Your task to perform on an android device: Show me recent news Image 0: 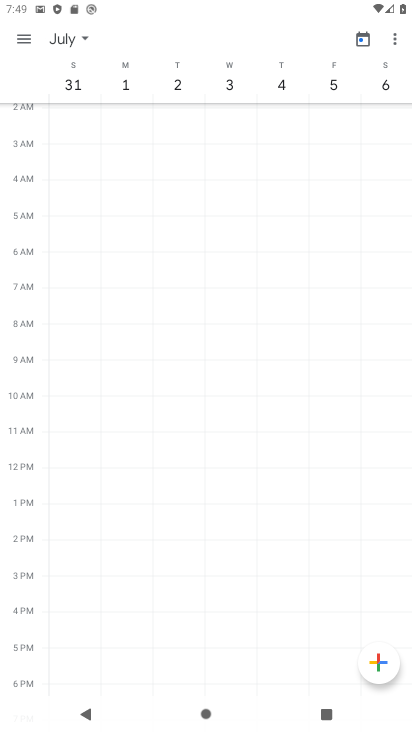
Step 0: press home button
Your task to perform on an android device: Show me recent news Image 1: 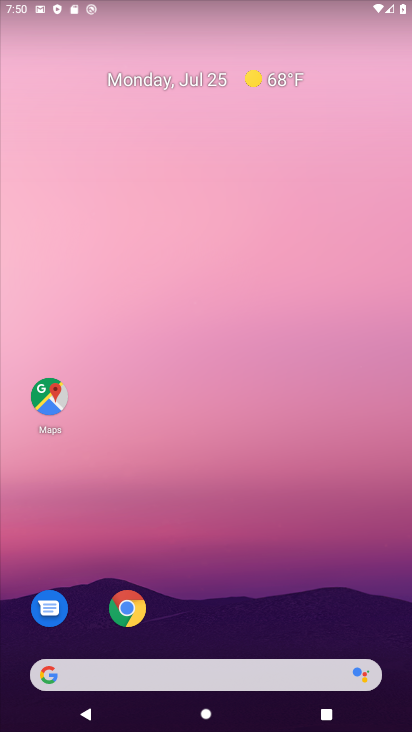
Step 1: click (148, 676)
Your task to perform on an android device: Show me recent news Image 2: 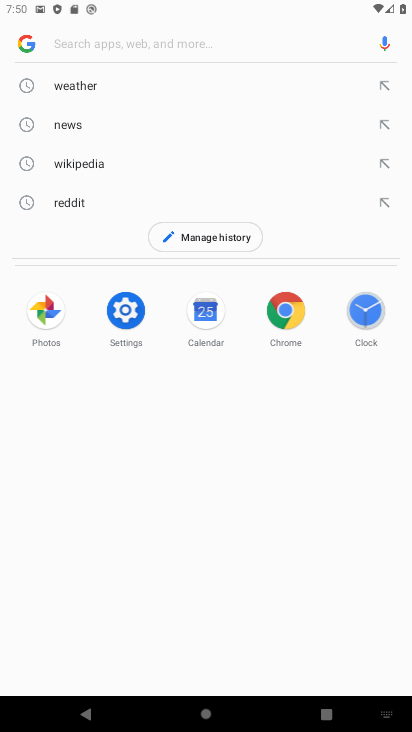
Step 2: type "recent news"
Your task to perform on an android device: Show me recent news Image 3: 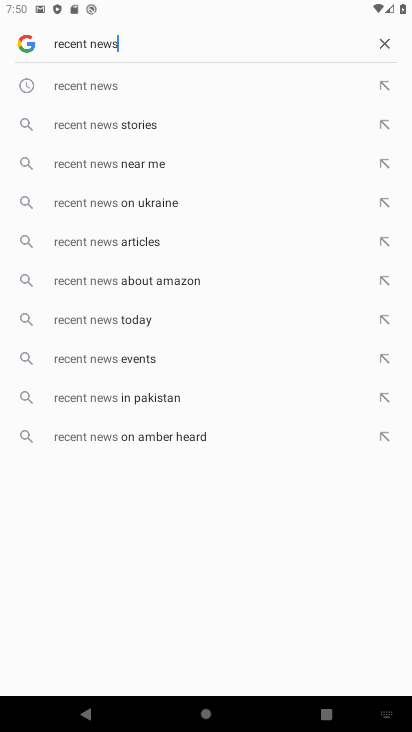
Step 3: click (131, 89)
Your task to perform on an android device: Show me recent news Image 4: 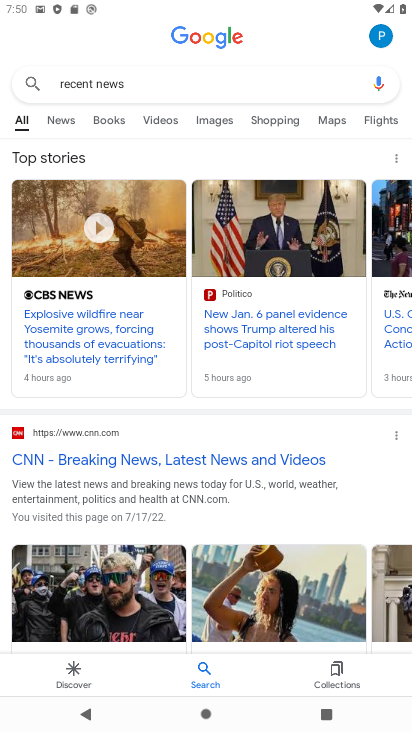
Step 4: drag from (194, 503) to (169, 263)
Your task to perform on an android device: Show me recent news Image 5: 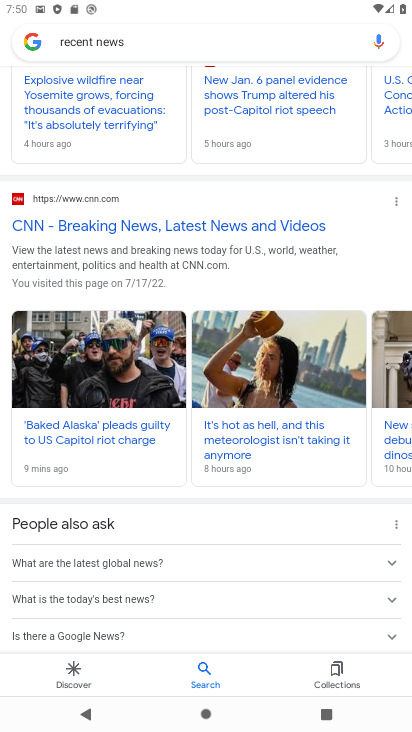
Step 5: click (107, 377)
Your task to perform on an android device: Show me recent news Image 6: 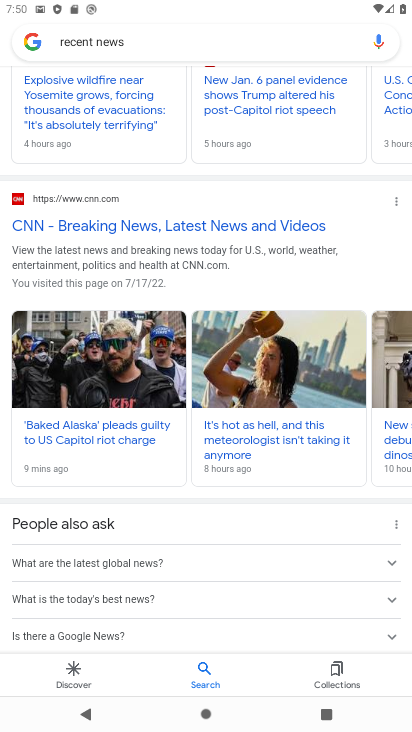
Step 6: click (85, 436)
Your task to perform on an android device: Show me recent news Image 7: 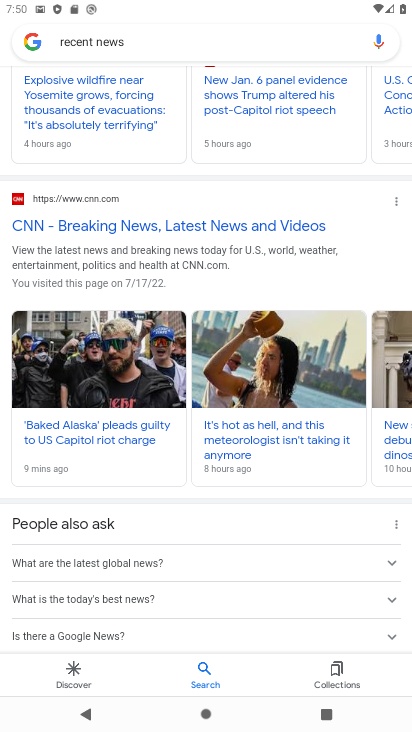
Step 7: click (60, 339)
Your task to perform on an android device: Show me recent news Image 8: 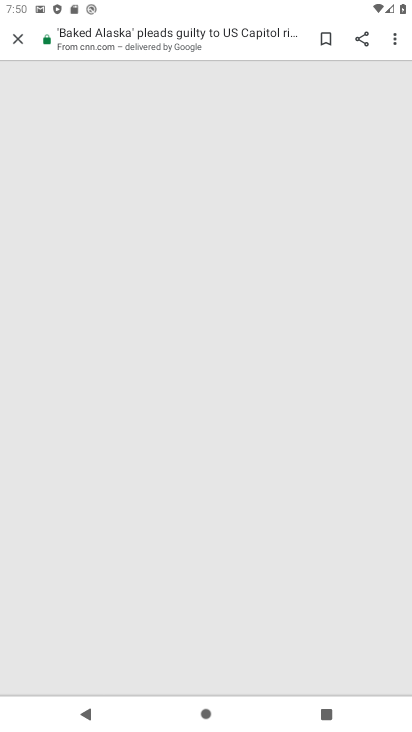
Step 8: drag from (237, 179) to (213, 378)
Your task to perform on an android device: Show me recent news Image 9: 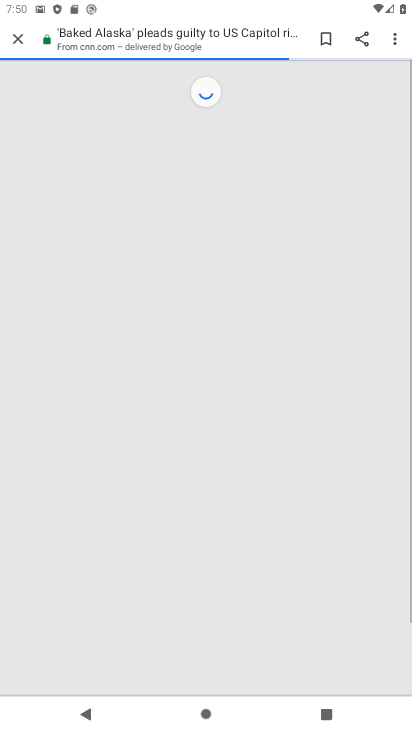
Step 9: drag from (214, 469) to (218, 81)
Your task to perform on an android device: Show me recent news Image 10: 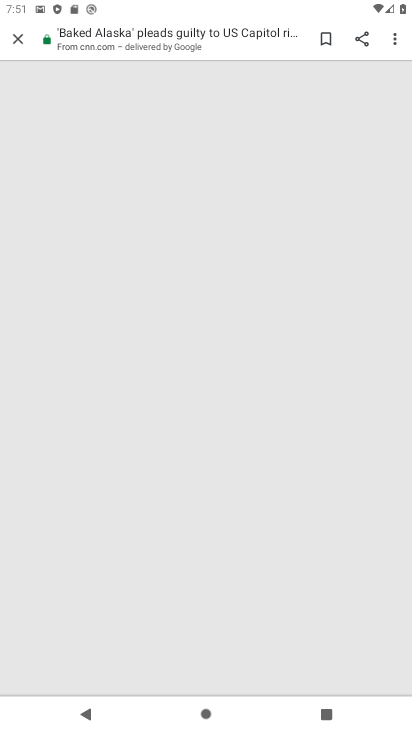
Step 10: click (11, 31)
Your task to perform on an android device: Show me recent news Image 11: 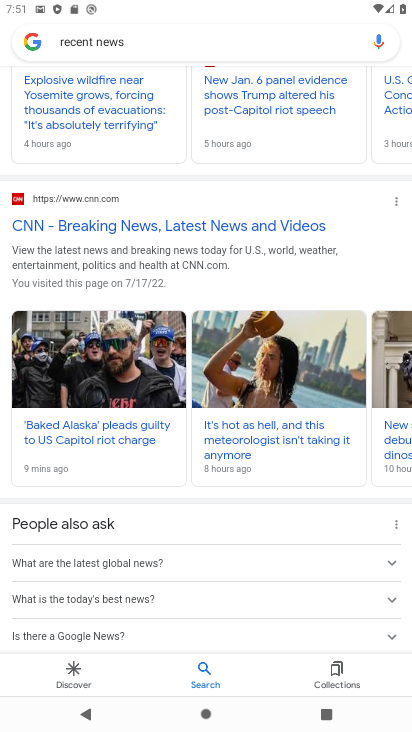
Step 11: click (104, 339)
Your task to perform on an android device: Show me recent news Image 12: 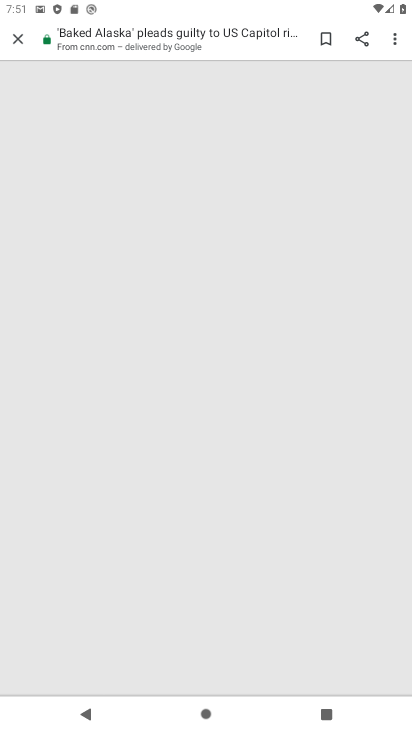
Step 12: task complete